Your task to perform on an android device: turn on airplane mode Image 0: 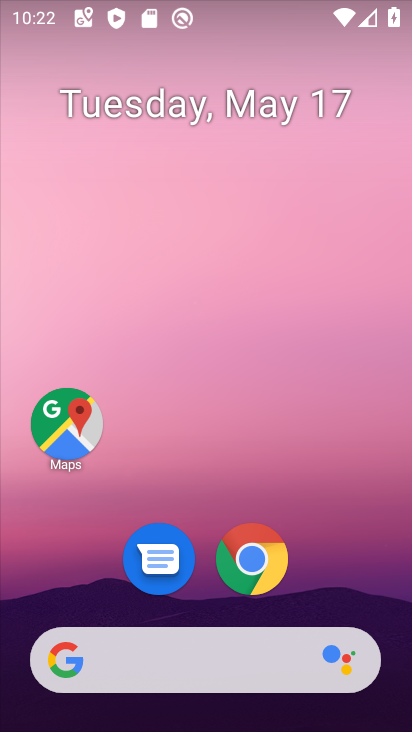
Step 0: drag from (241, 690) to (230, 5)
Your task to perform on an android device: turn on airplane mode Image 1: 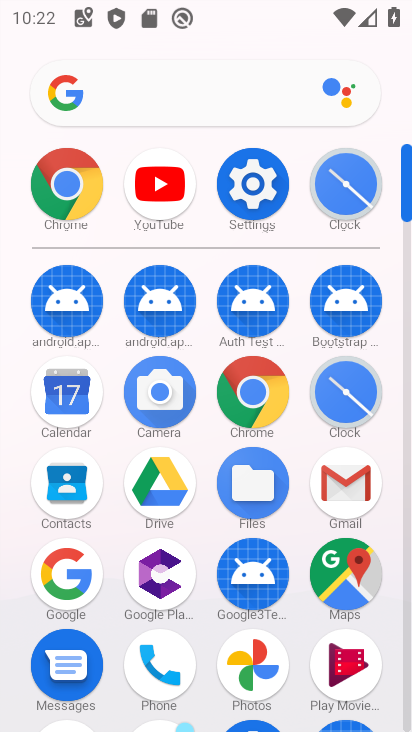
Step 1: click (237, 200)
Your task to perform on an android device: turn on airplane mode Image 2: 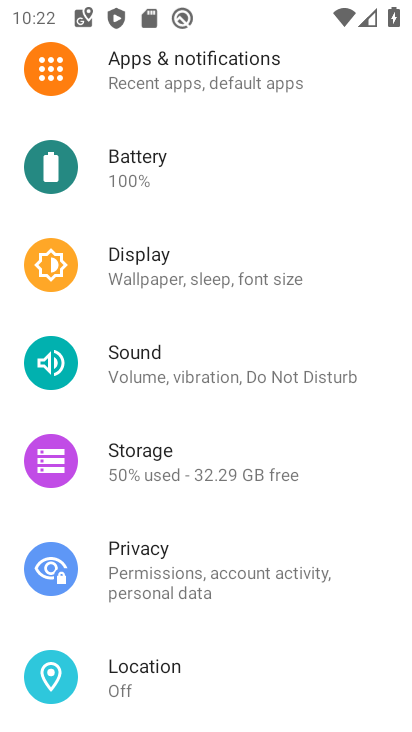
Step 2: drag from (301, 147) to (246, 684)
Your task to perform on an android device: turn on airplane mode Image 3: 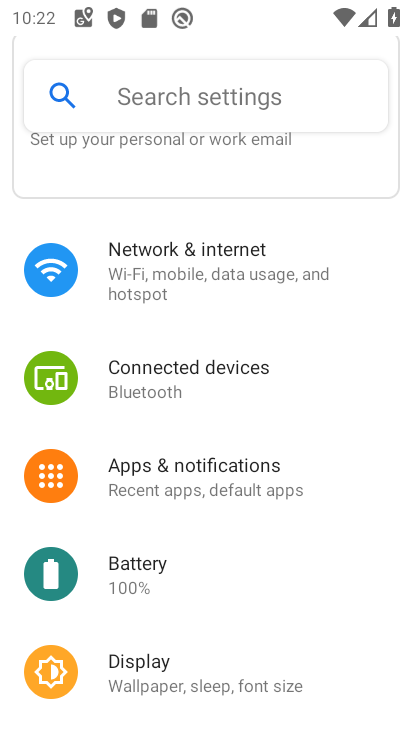
Step 3: click (254, 258)
Your task to perform on an android device: turn on airplane mode Image 4: 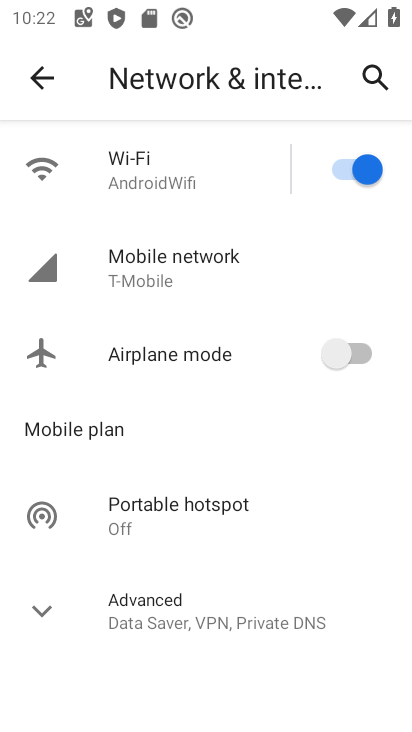
Step 4: click (338, 357)
Your task to perform on an android device: turn on airplane mode Image 5: 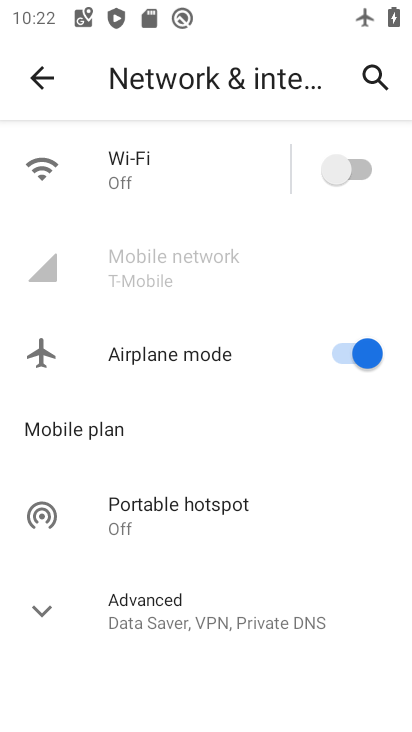
Step 5: task complete